Your task to perform on an android device: turn on airplane mode Image 0: 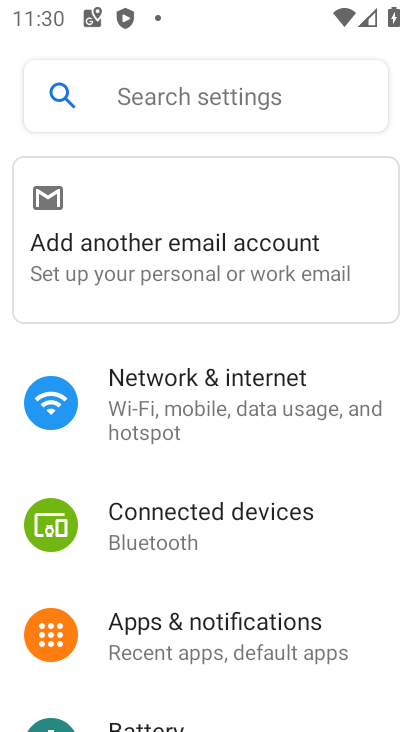
Step 0: click (185, 422)
Your task to perform on an android device: turn on airplane mode Image 1: 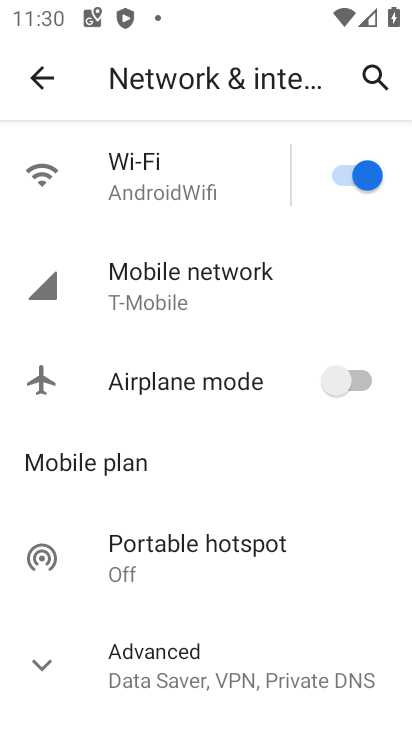
Step 1: click (345, 381)
Your task to perform on an android device: turn on airplane mode Image 2: 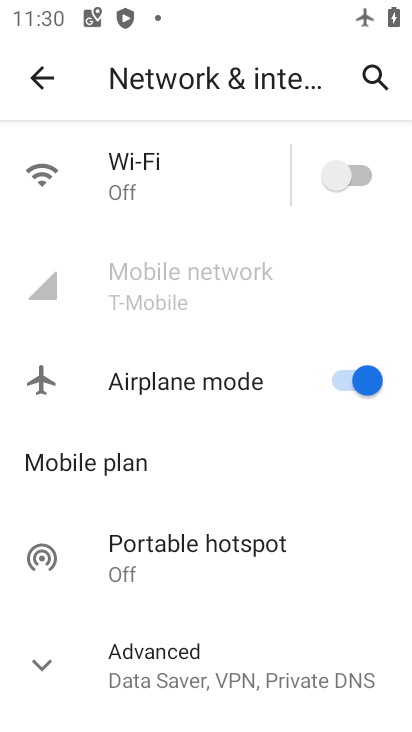
Step 2: task complete